Your task to perform on an android device: Open Chrome and go to the settings page Image 0: 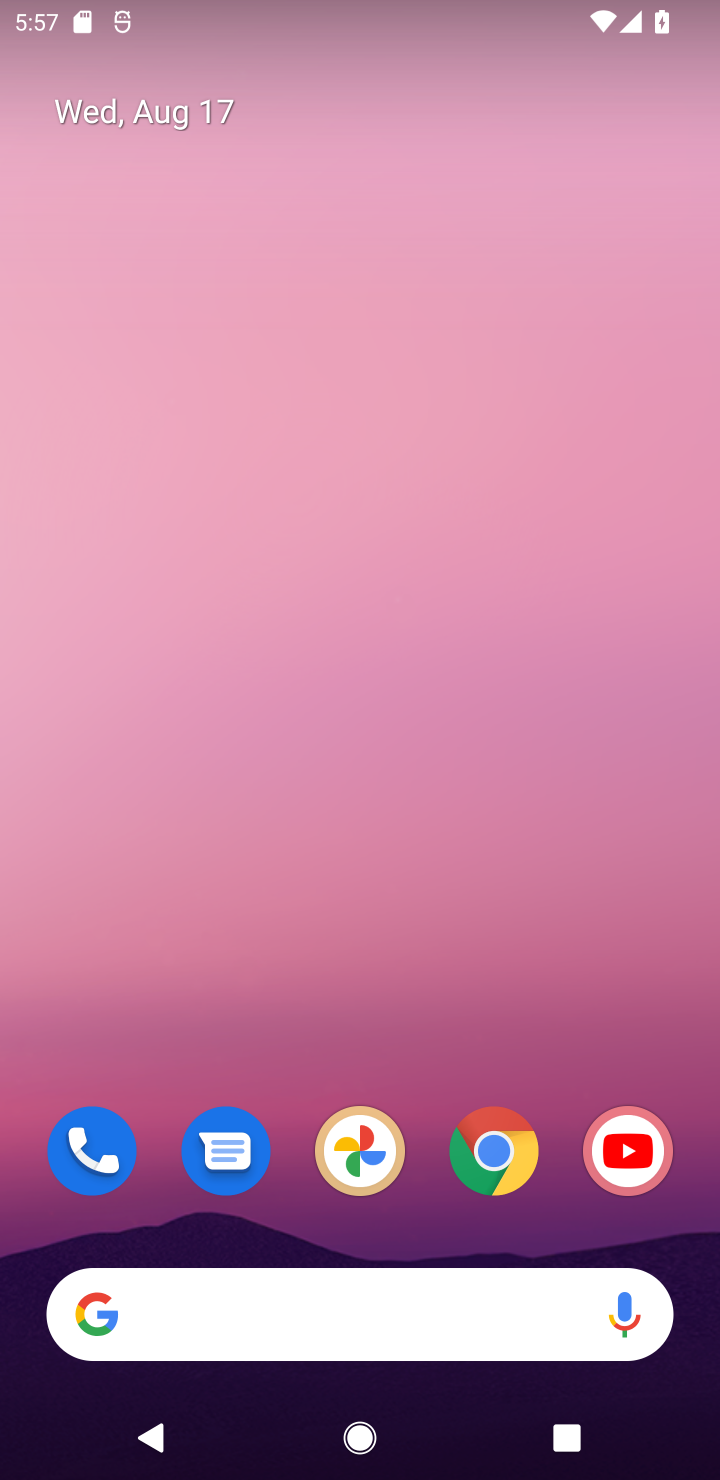
Step 0: click (504, 1090)
Your task to perform on an android device: Open Chrome and go to the settings page Image 1: 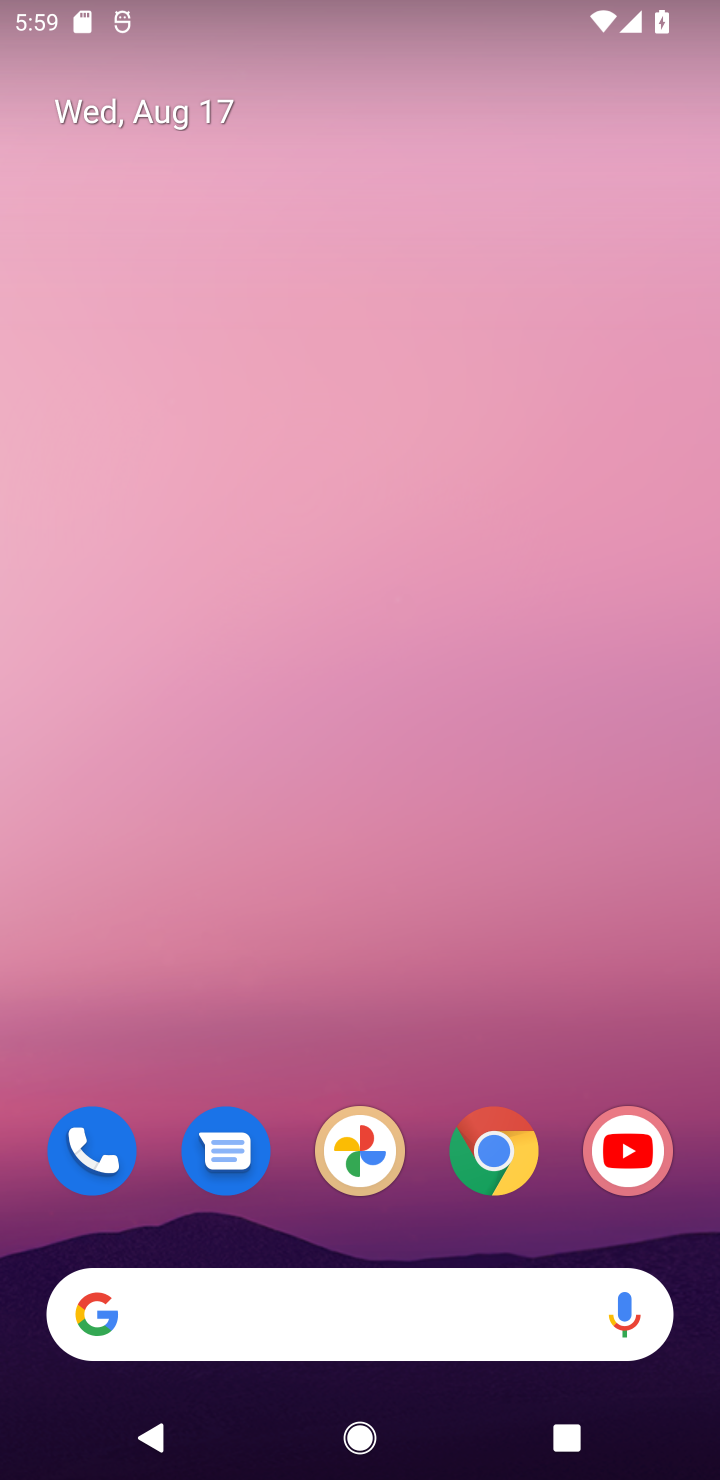
Step 1: click (491, 1158)
Your task to perform on an android device: Open Chrome and go to the settings page Image 2: 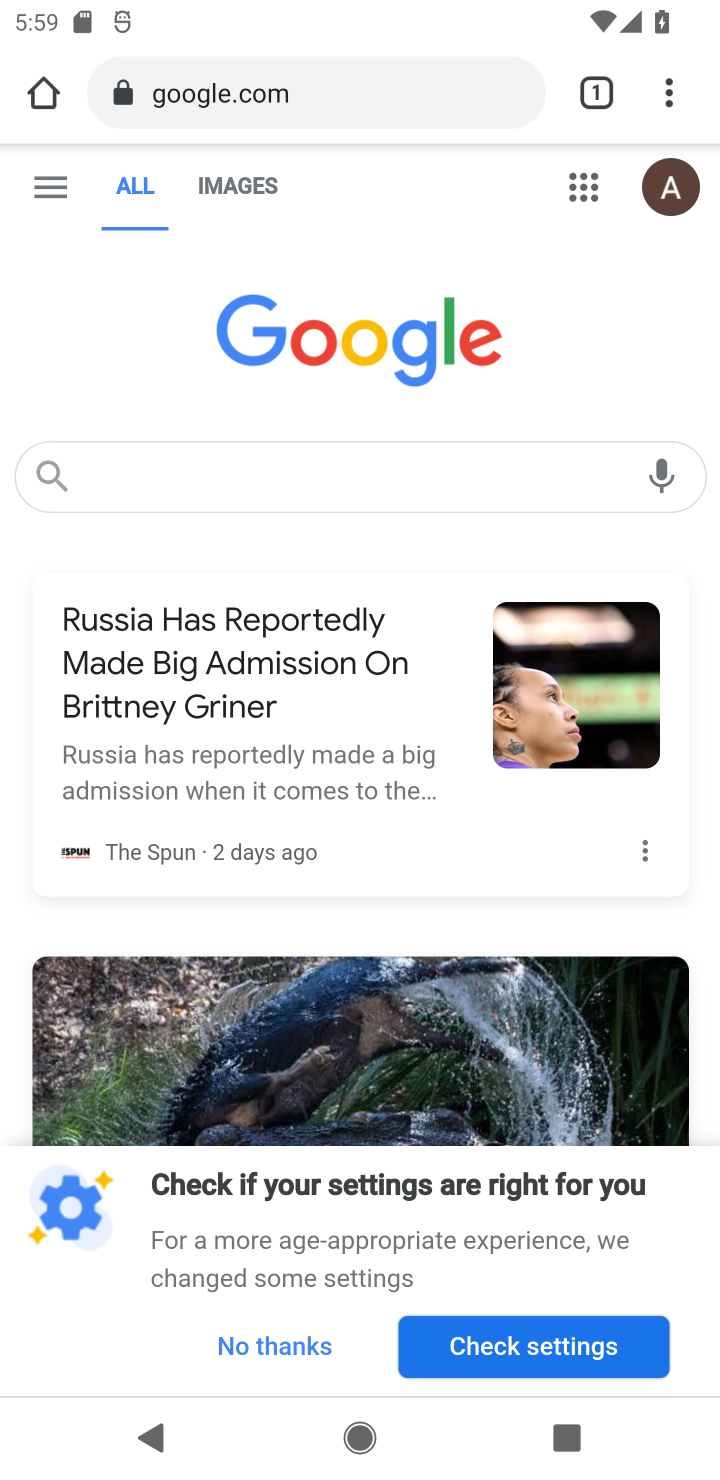
Step 2: click (688, 112)
Your task to perform on an android device: Open Chrome and go to the settings page Image 3: 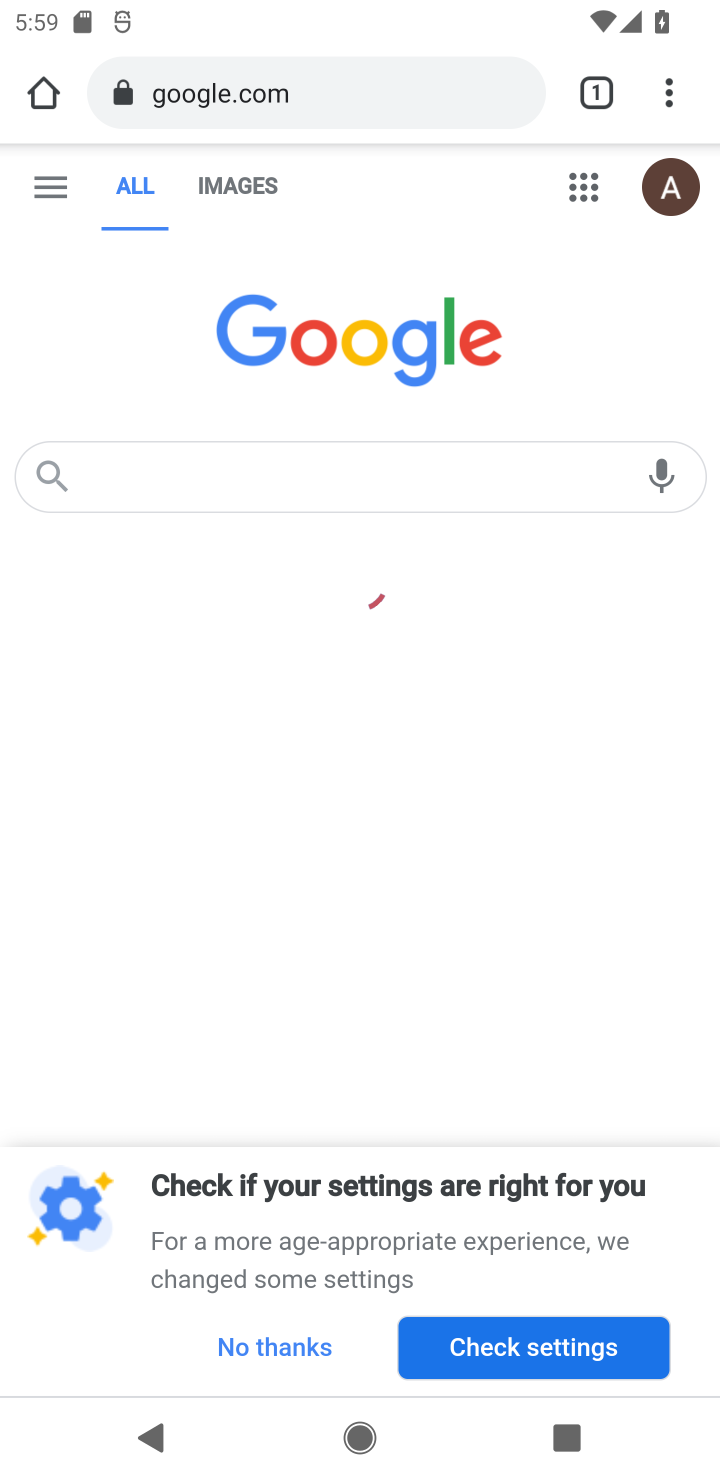
Step 3: task complete